Your task to perform on an android device: Open Chrome and go to the settings page Image 0: 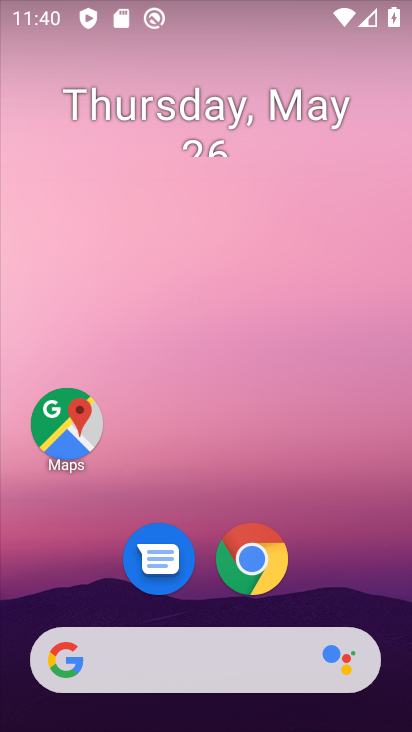
Step 0: drag from (324, 546) to (222, 132)
Your task to perform on an android device: Open Chrome and go to the settings page Image 1: 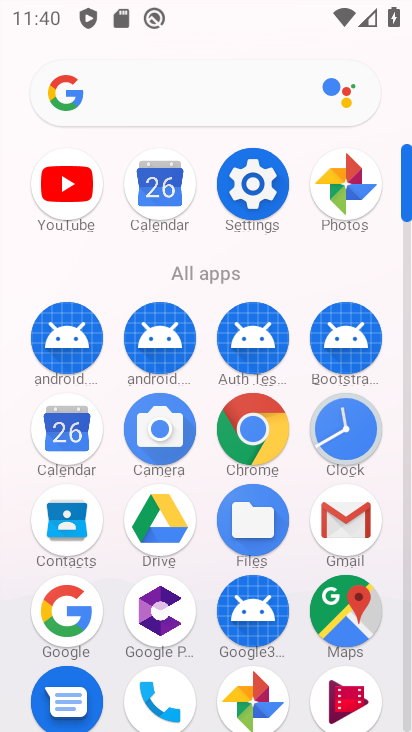
Step 1: click (245, 190)
Your task to perform on an android device: Open Chrome and go to the settings page Image 2: 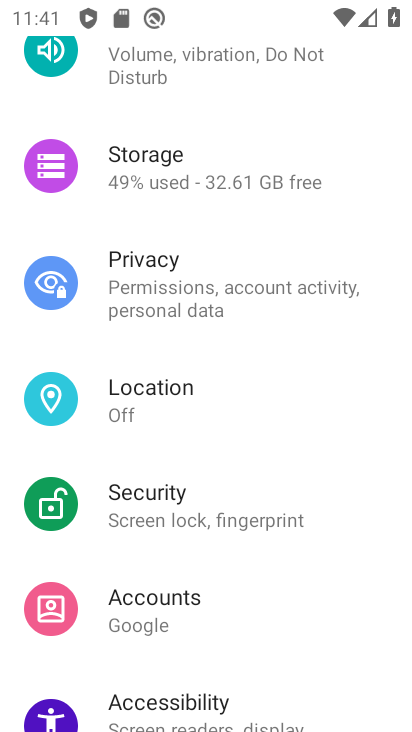
Step 2: press home button
Your task to perform on an android device: Open Chrome and go to the settings page Image 3: 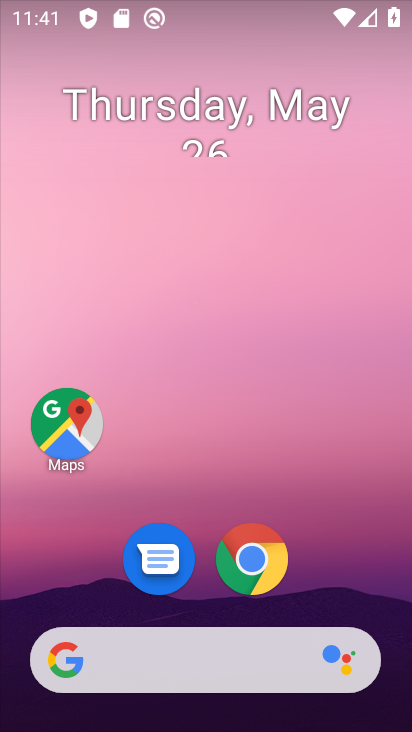
Step 3: click (248, 554)
Your task to perform on an android device: Open Chrome and go to the settings page Image 4: 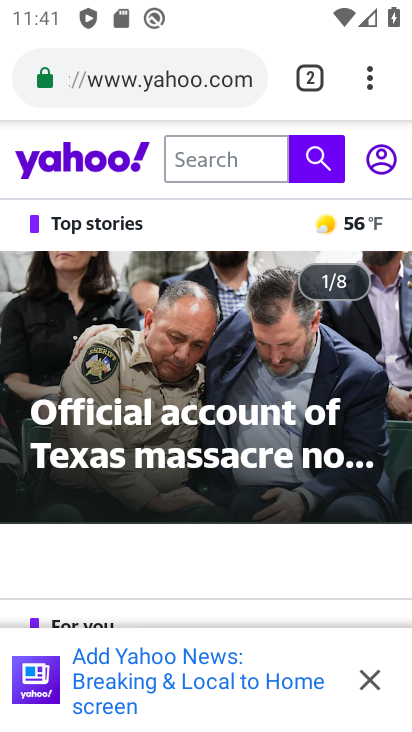
Step 4: click (364, 66)
Your task to perform on an android device: Open Chrome and go to the settings page Image 5: 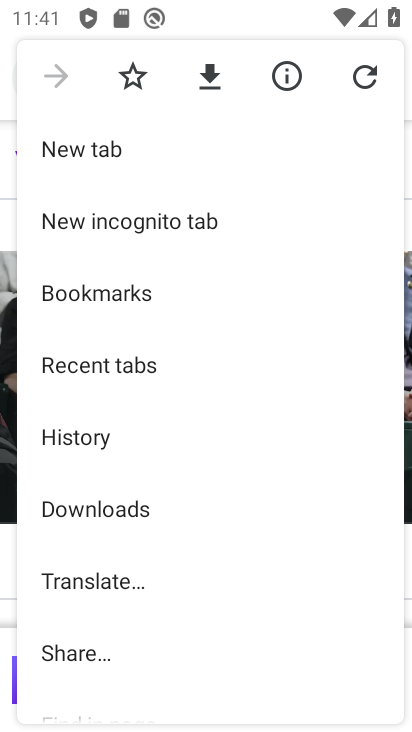
Step 5: drag from (153, 699) to (196, 162)
Your task to perform on an android device: Open Chrome and go to the settings page Image 6: 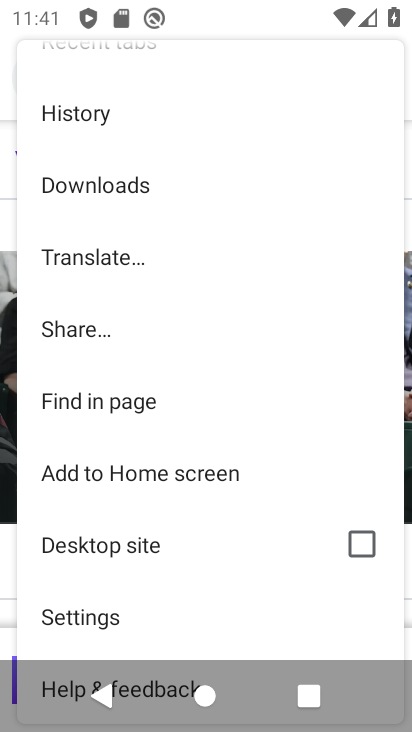
Step 6: click (110, 620)
Your task to perform on an android device: Open Chrome and go to the settings page Image 7: 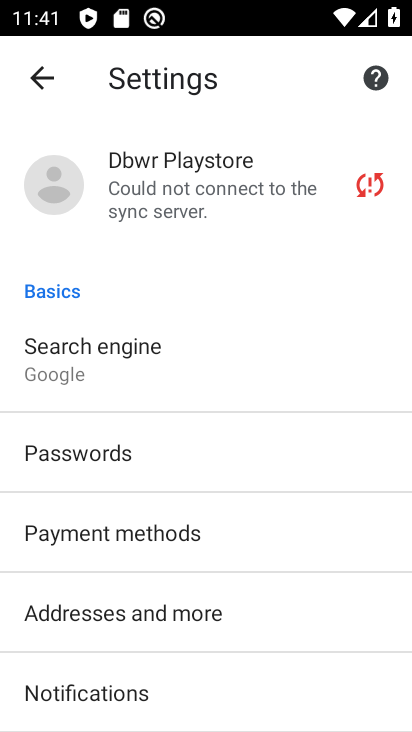
Step 7: task complete